Your task to perform on an android device: open app "LiveIn - Share Your Moment" (install if not already installed) and enter user name: "certifies@gmail.com" and password: "compartmented" Image 0: 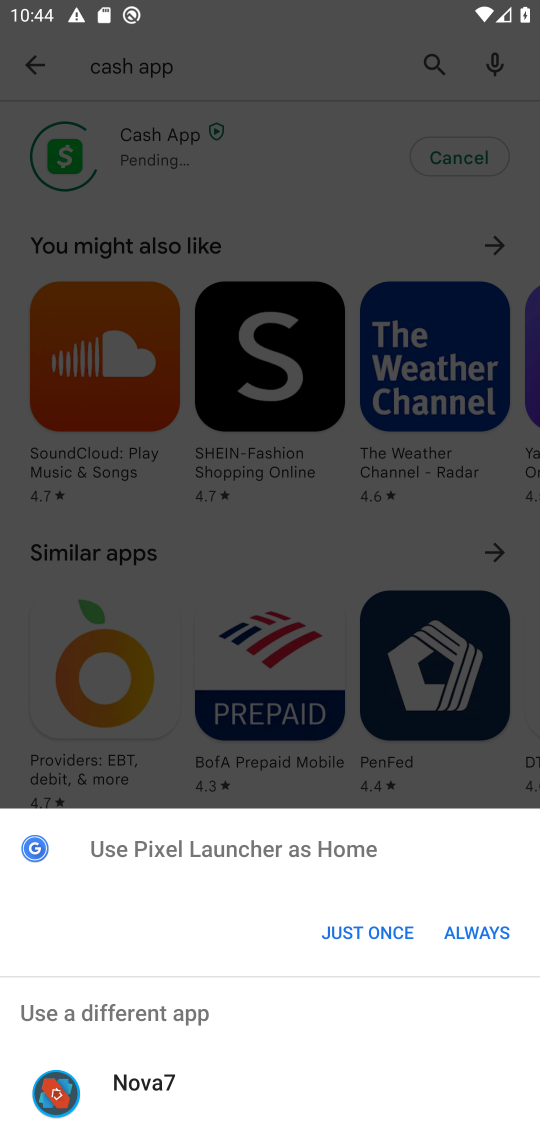
Step 0: click (439, 76)
Your task to perform on an android device: open app "LiveIn - Share Your Moment" (install if not already installed) and enter user name: "certifies@gmail.com" and password: "compartmented" Image 1: 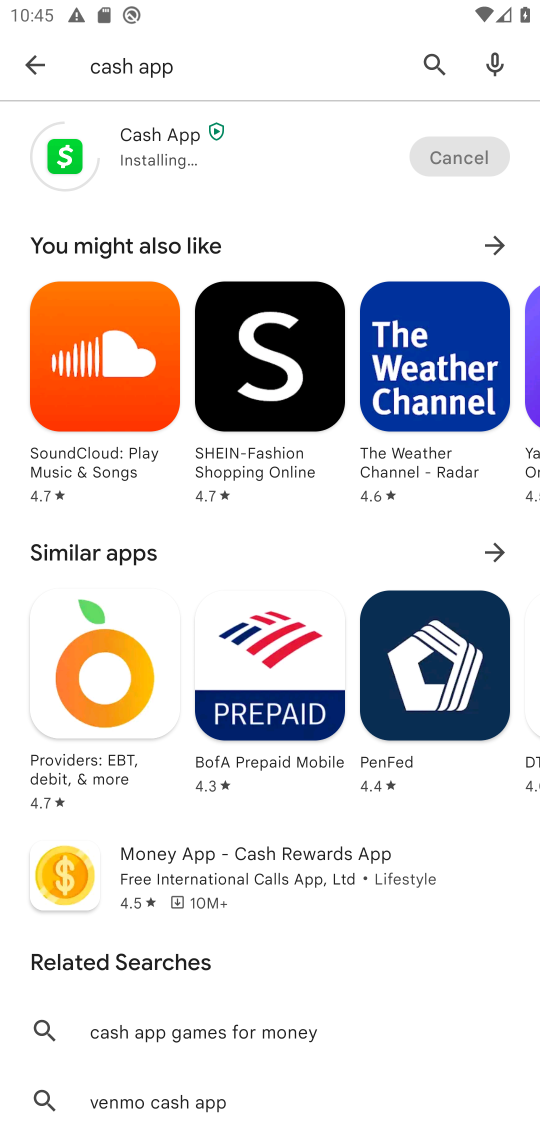
Step 1: click (436, 79)
Your task to perform on an android device: open app "LiveIn - Share Your Moment" (install if not already installed) and enter user name: "certifies@gmail.com" and password: "compartmented" Image 2: 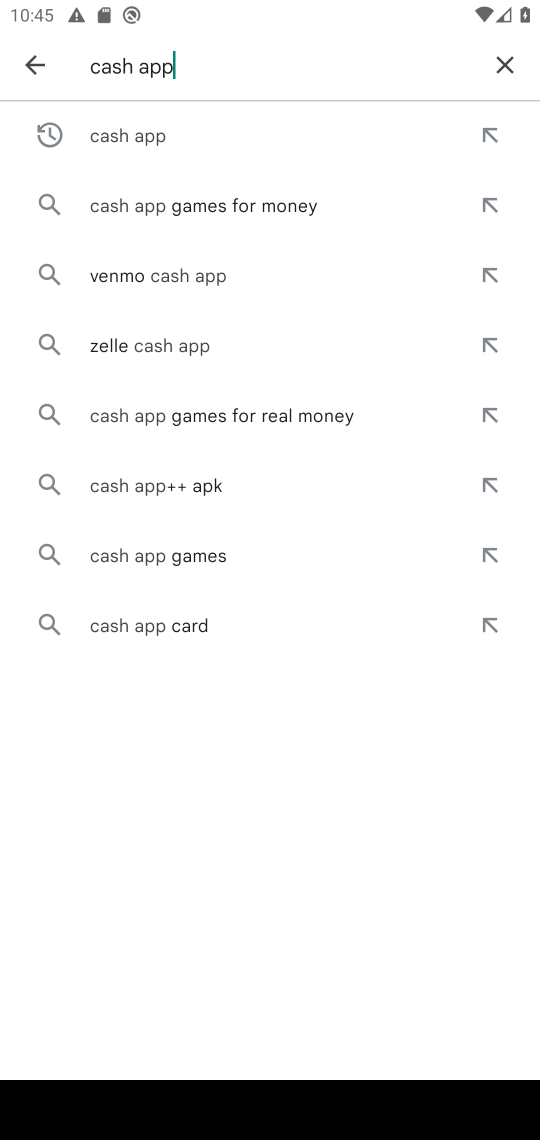
Step 2: click (495, 73)
Your task to perform on an android device: open app "LiveIn - Share Your Moment" (install if not already installed) and enter user name: "certifies@gmail.com" and password: "compartmented" Image 3: 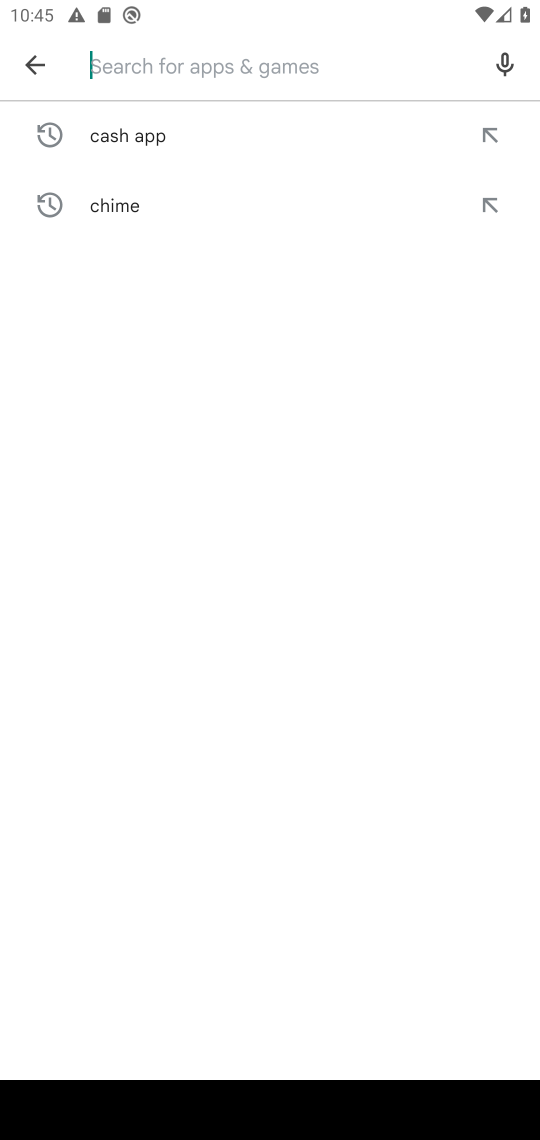
Step 3: type "livein"
Your task to perform on an android device: open app "LiveIn - Share Your Moment" (install if not already installed) and enter user name: "certifies@gmail.com" and password: "compartmented" Image 4: 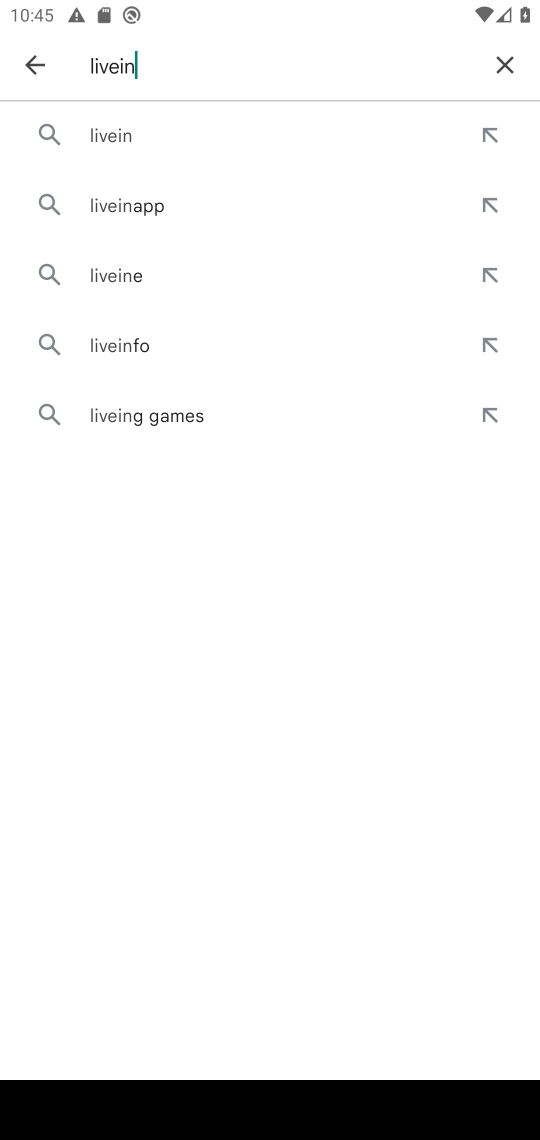
Step 4: click (121, 153)
Your task to perform on an android device: open app "LiveIn - Share Your Moment" (install if not already installed) and enter user name: "certifies@gmail.com" and password: "compartmented" Image 5: 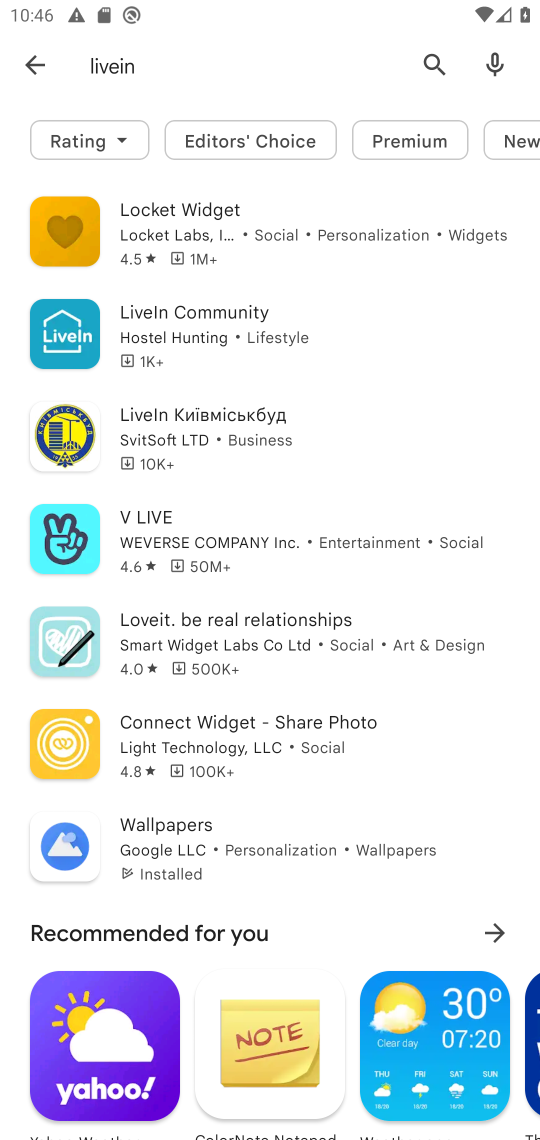
Step 5: click (213, 303)
Your task to perform on an android device: open app "LiveIn - Share Your Moment" (install if not already installed) and enter user name: "certifies@gmail.com" and password: "compartmented" Image 6: 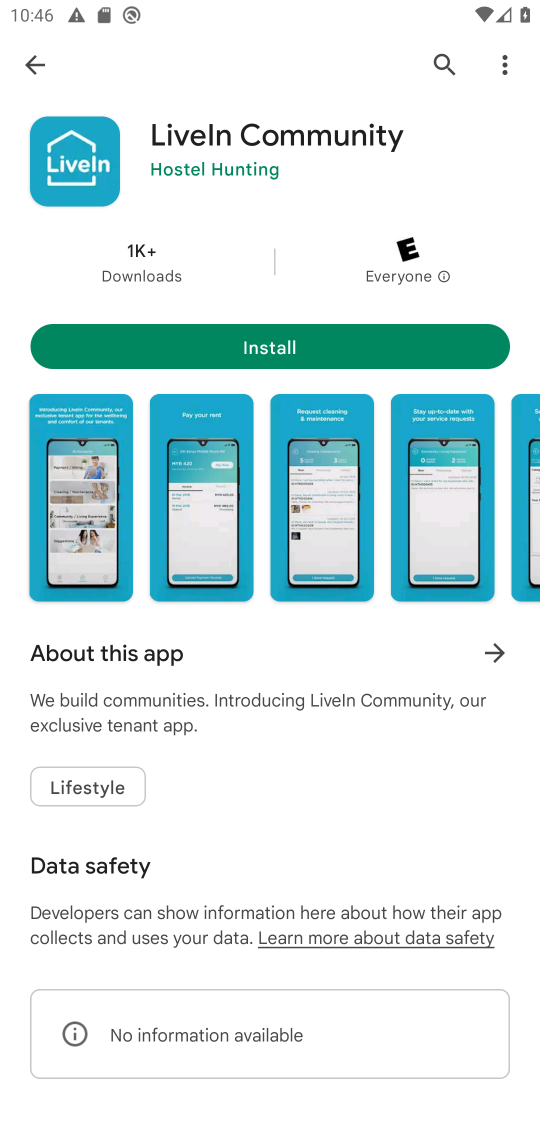
Step 6: click (238, 336)
Your task to perform on an android device: open app "LiveIn - Share Your Moment" (install if not already installed) and enter user name: "certifies@gmail.com" and password: "compartmented" Image 7: 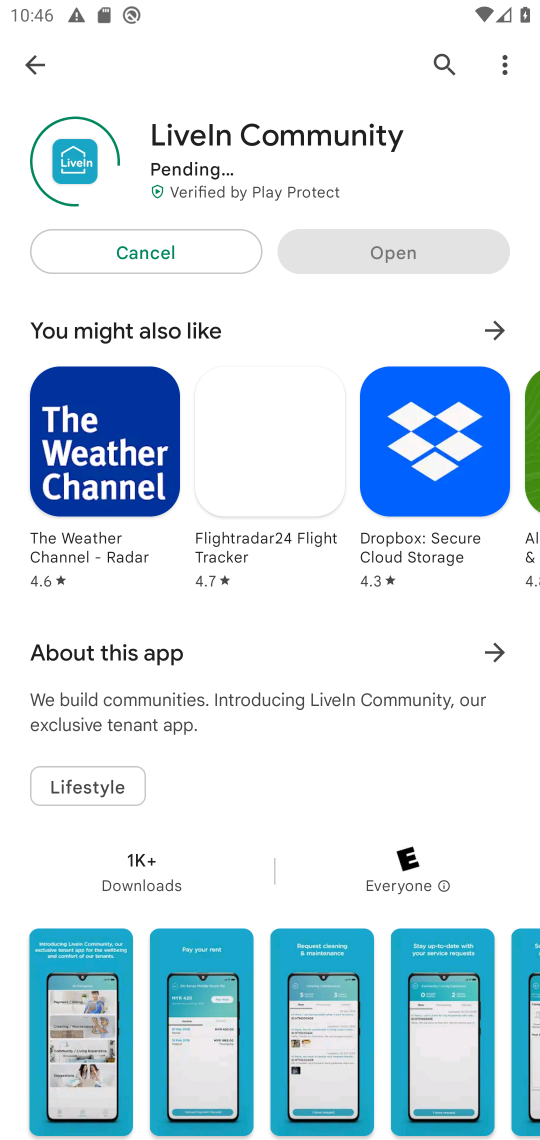
Step 7: task complete